Your task to perform on an android device: Search for sushi restaurants on Maps Image 0: 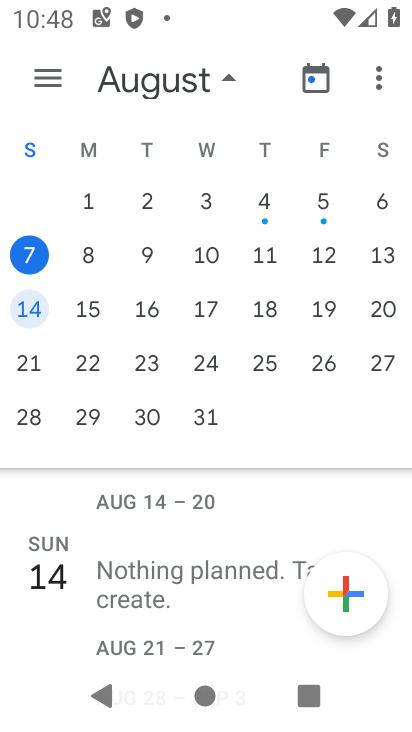
Step 0: press home button
Your task to perform on an android device: Search for sushi restaurants on Maps Image 1: 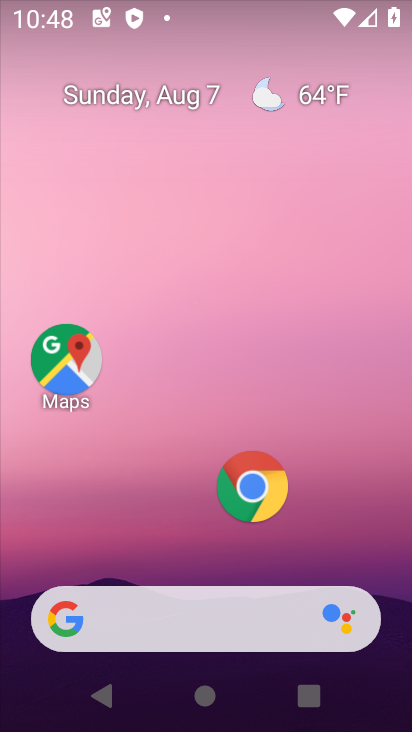
Step 1: click (57, 349)
Your task to perform on an android device: Search for sushi restaurants on Maps Image 2: 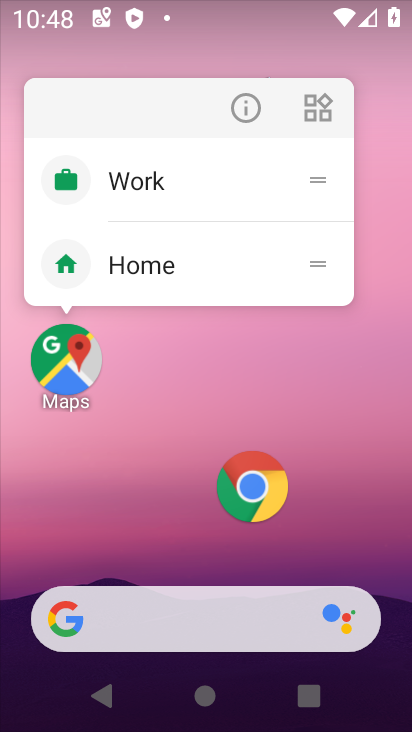
Step 2: click (57, 349)
Your task to perform on an android device: Search for sushi restaurants on Maps Image 3: 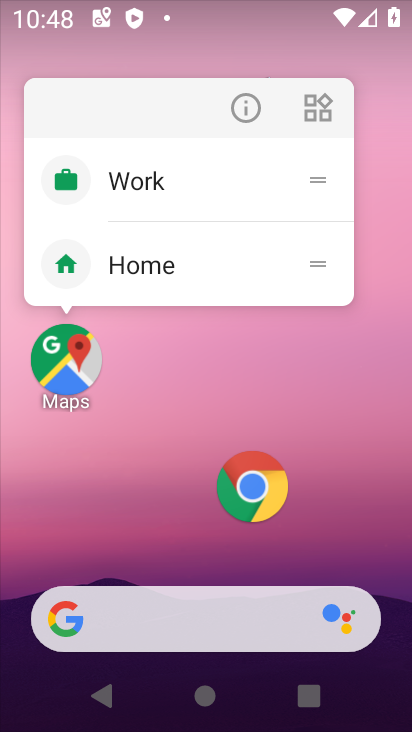
Step 3: click (57, 364)
Your task to perform on an android device: Search for sushi restaurants on Maps Image 4: 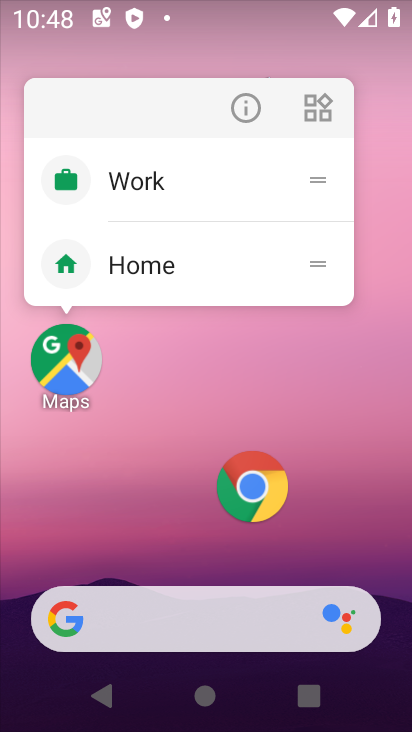
Step 4: click (86, 386)
Your task to perform on an android device: Search for sushi restaurants on Maps Image 5: 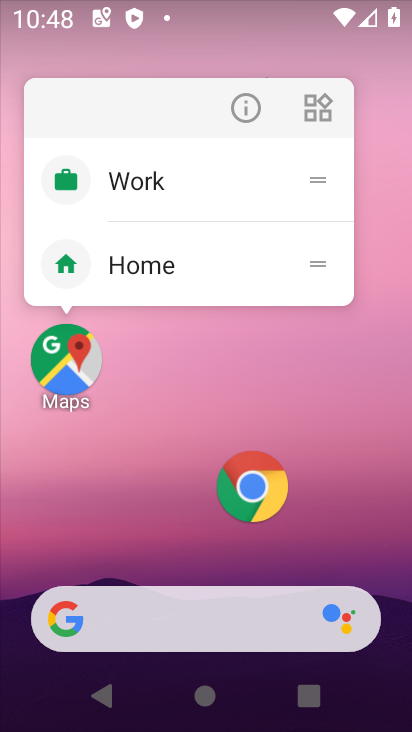
Step 5: click (71, 383)
Your task to perform on an android device: Search for sushi restaurants on Maps Image 6: 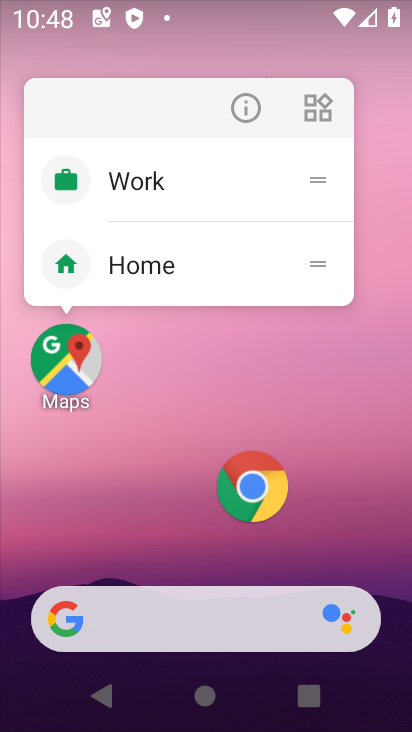
Step 6: click (71, 383)
Your task to perform on an android device: Search for sushi restaurants on Maps Image 7: 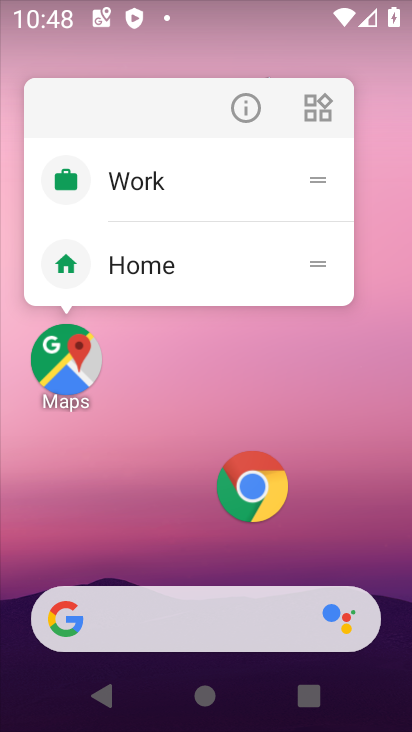
Step 7: click (71, 383)
Your task to perform on an android device: Search for sushi restaurants on Maps Image 8: 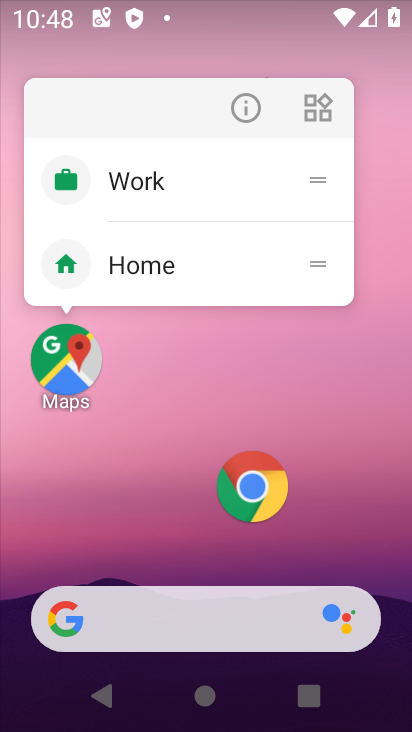
Step 8: click (66, 399)
Your task to perform on an android device: Search for sushi restaurants on Maps Image 9: 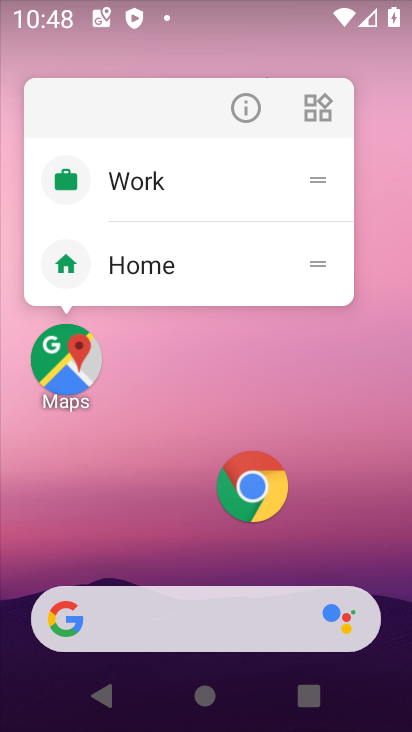
Step 9: click (65, 343)
Your task to perform on an android device: Search for sushi restaurants on Maps Image 10: 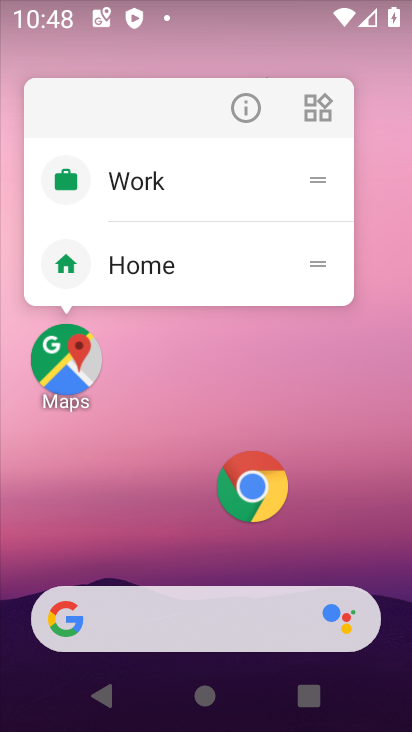
Step 10: click (66, 352)
Your task to perform on an android device: Search for sushi restaurants on Maps Image 11: 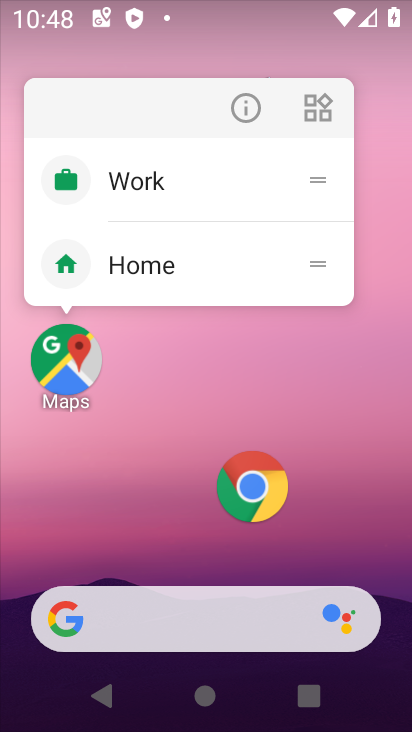
Step 11: press home button
Your task to perform on an android device: Search for sushi restaurants on Maps Image 12: 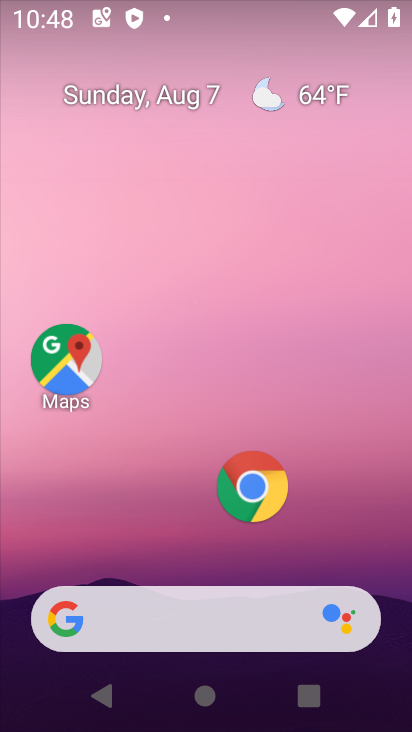
Step 12: click (63, 339)
Your task to perform on an android device: Search for sushi restaurants on Maps Image 13: 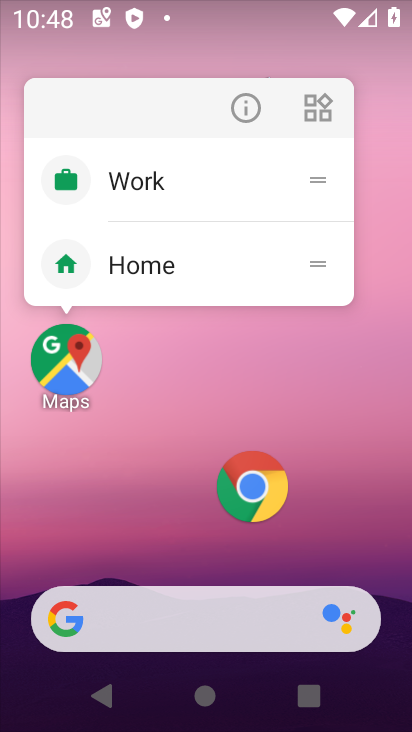
Step 13: click (63, 343)
Your task to perform on an android device: Search for sushi restaurants on Maps Image 14: 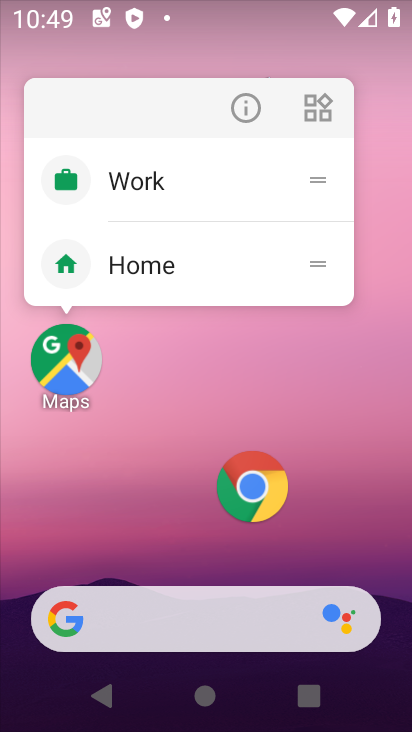
Step 14: click (56, 359)
Your task to perform on an android device: Search for sushi restaurants on Maps Image 15: 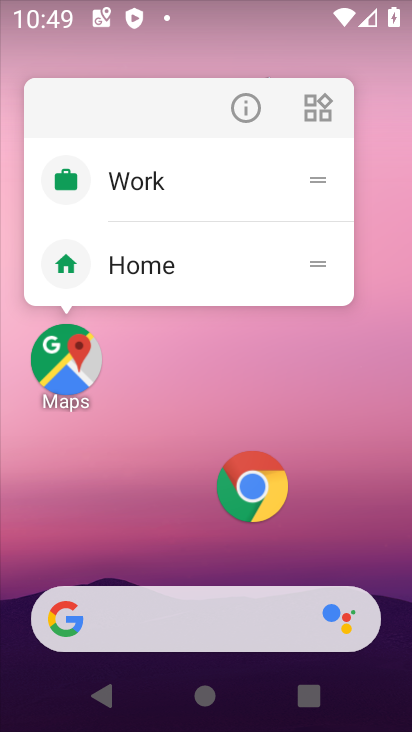
Step 15: click (56, 359)
Your task to perform on an android device: Search for sushi restaurants on Maps Image 16: 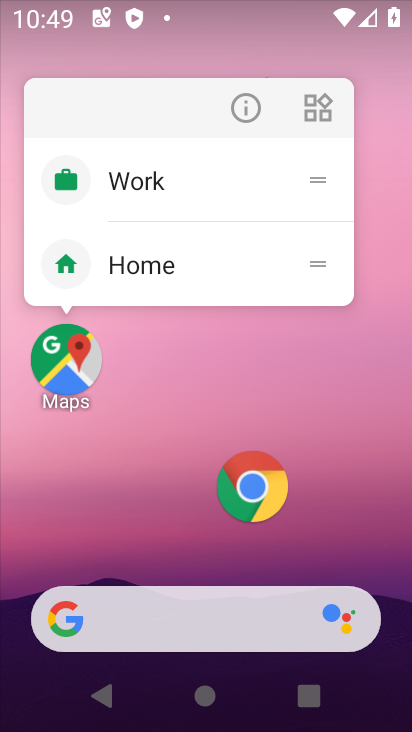
Step 16: click (68, 384)
Your task to perform on an android device: Search for sushi restaurants on Maps Image 17: 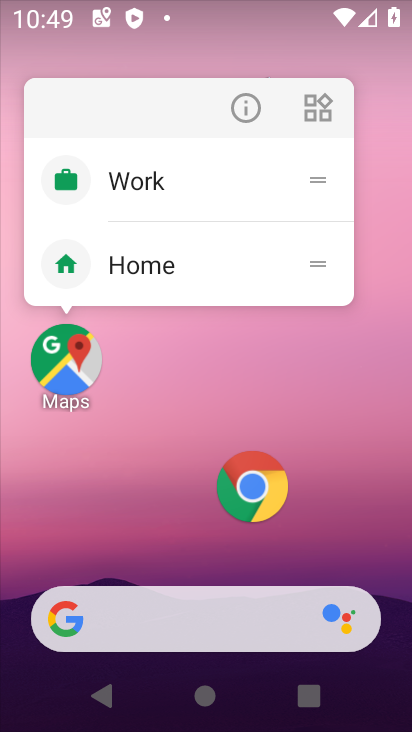
Step 17: click (73, 366)
Your task to perform on an android device: Search for sushi restaurants on Maps Image 18: 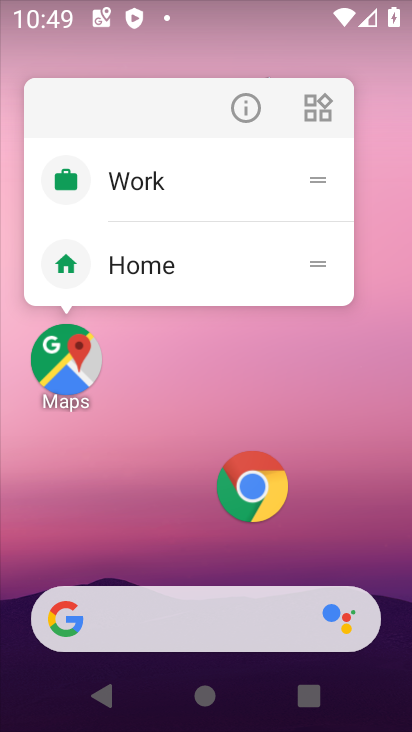
Step 18: click (73, 366)
Your task to perform on an android device: Search for sushi restaurants on Maps Image 19: 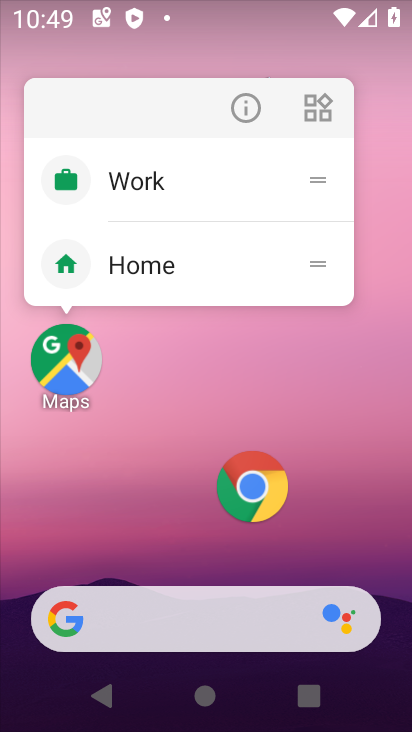
Step 19: click (73, 366)
Your task to perform on an android device: Search for sushi restaurants on Maps Image 20: 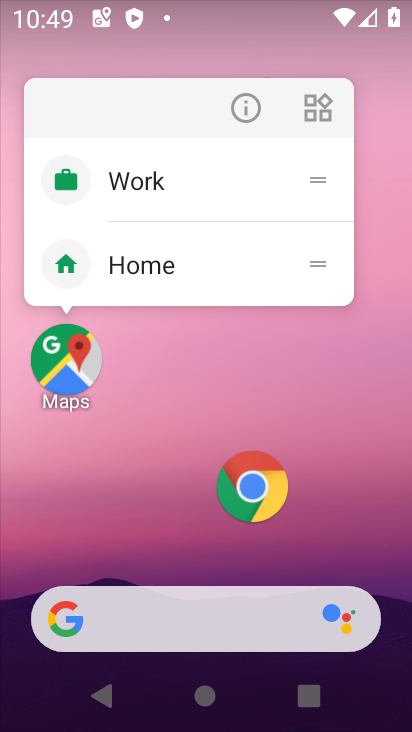
Step 20: click (52, 392)
Your task to perform on an android device: Search for sushi restaurants on Maps Image 21: 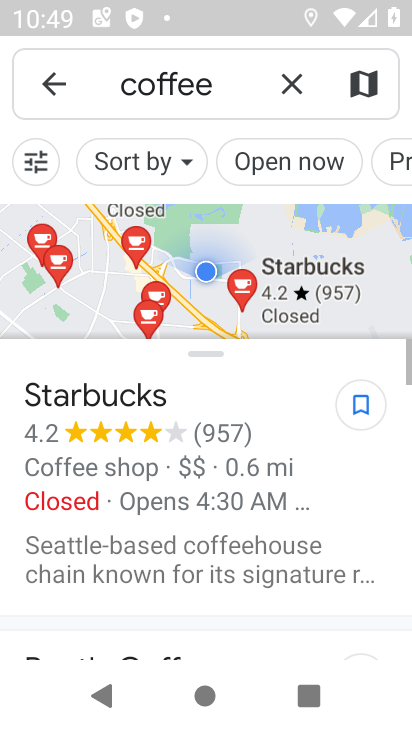
Step 21: click (298, 72)
Your task to perform on an android device: Search for sushi restaurants on Maps Image 22: 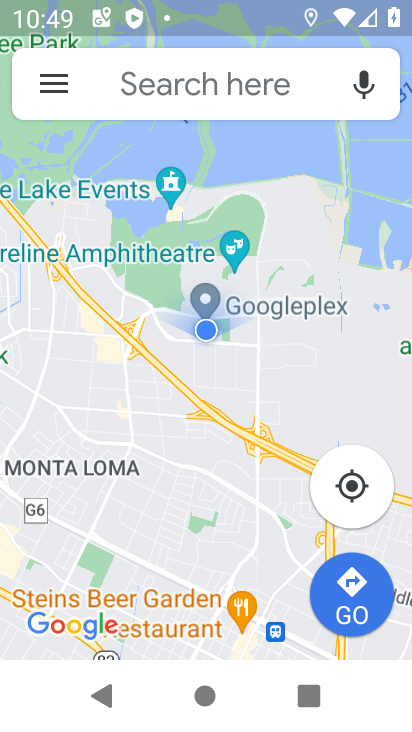
Step 22: click (208, 80)
Your task to perform on an android device: Search for sushi restaurants on Maps Image 23: 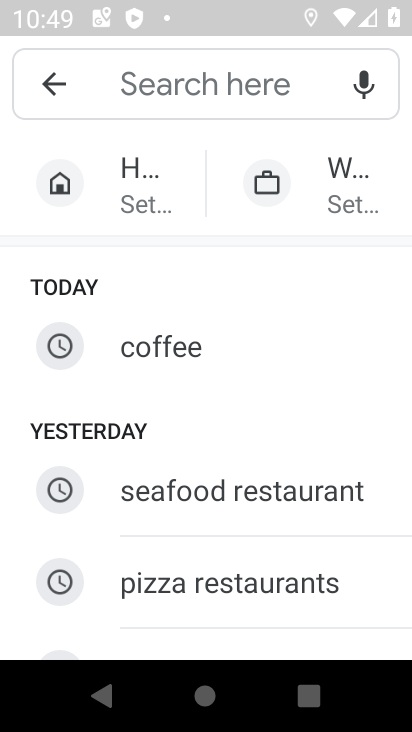
Step 23: drag from (252, 594) to (267, 158)
Your task to perform on an android device: Search for sushi restaurants on Maps Image 24: 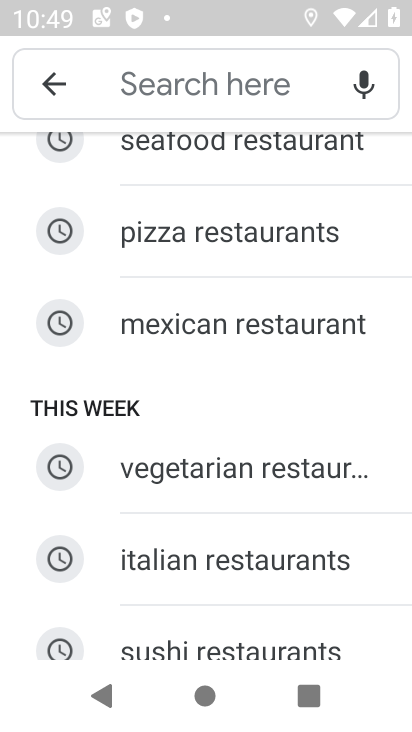
Step 24: click (235, 644)
Your task to perform on an android device: Search for sushi restaurants on Maps Image 25: 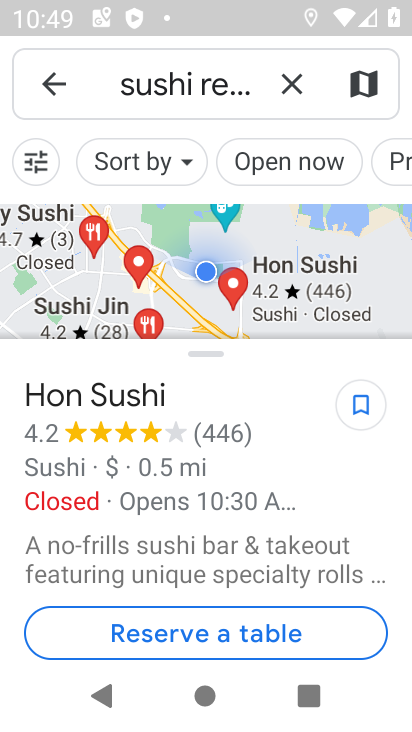
Step 25: task complete